Your task to perform on an android device: Turn on the flashlight Image 0: 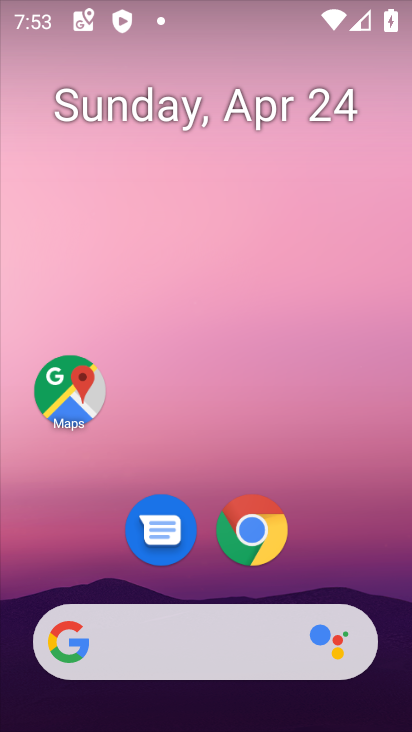
Step 0: drag from (222, 30) to (157, 686)
Your task to perform on an android device: Turn on the flashlight Image 1: 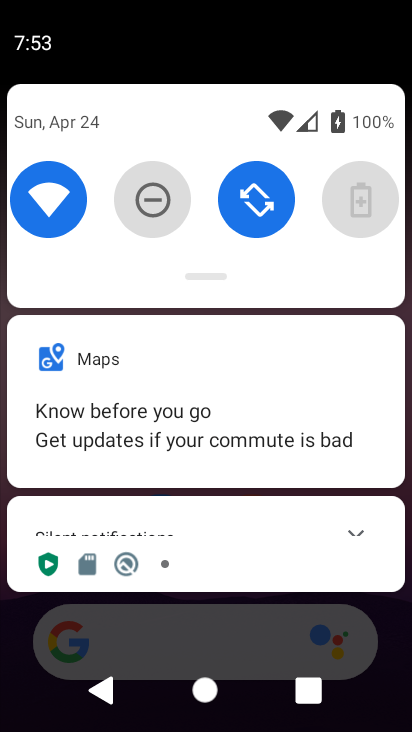
Step 1: drag from (202, 136) to (251, 553)
Your task to perform on an android device: Turn on the flashlight Image 2: 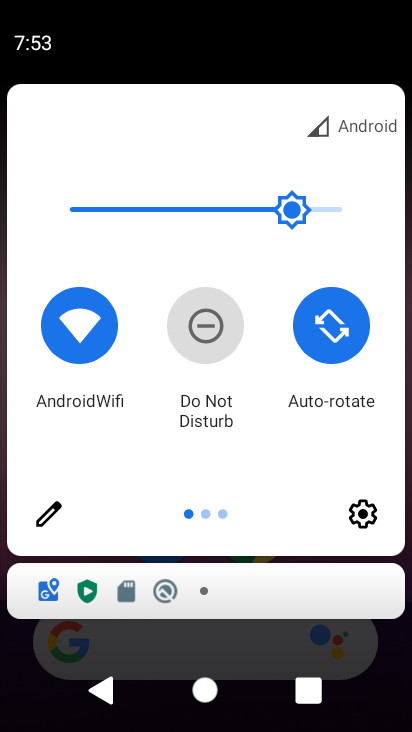
Step 2: click (361, 527)
Your task to perform on an android device: Turn on the flashlight Image 3: 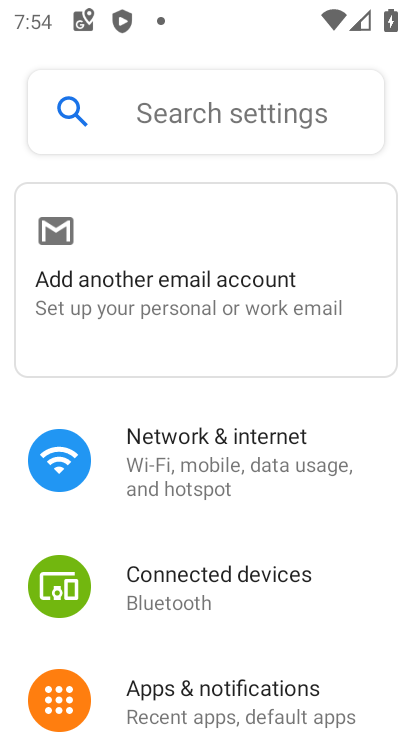
Step 3: task complete